Your task to perform on an android device: add a contact Image 0: 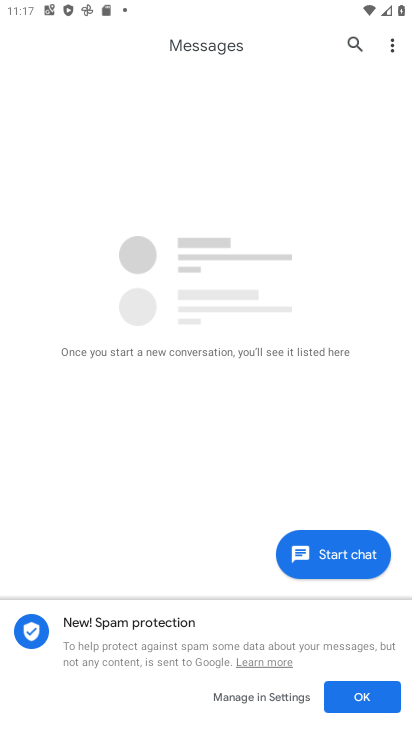
Step 0: press home button
Your task to perform on an android device: add a contact Image 1: 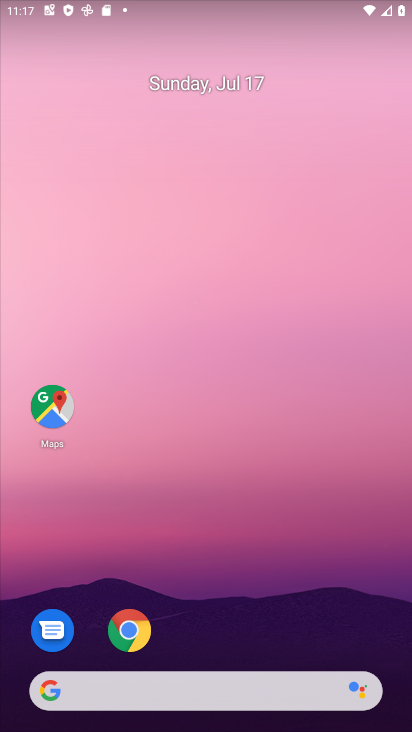
Step 1: drag from (258, 636) to (255, 179)
Your task to perform on an android device: add a contact Image 2: 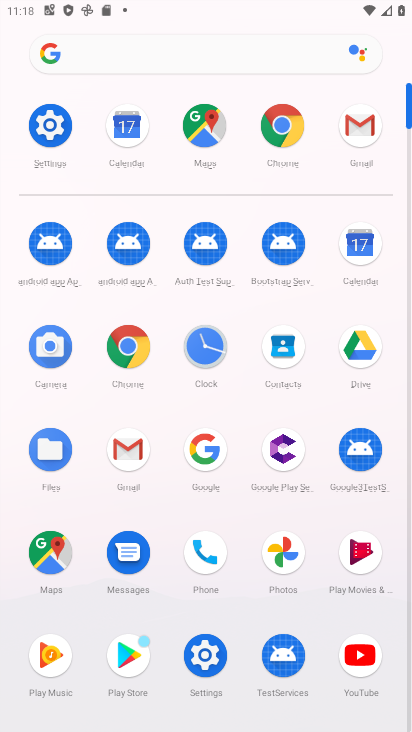
Step 2: click (283, 364)
Your task to perform on an android device: add a contact Image 3: 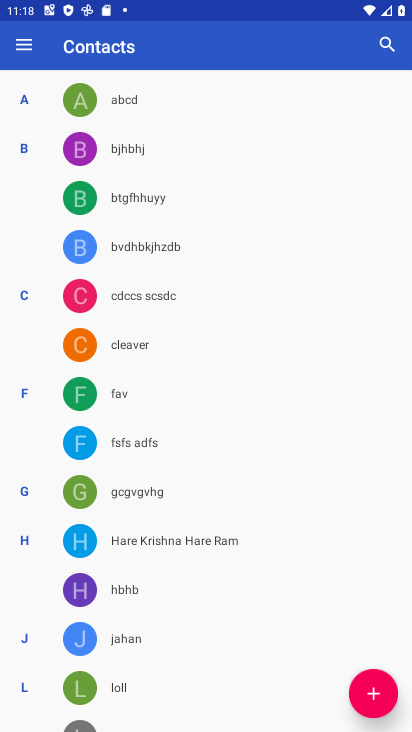
Step 3: click (383, 706)
Your task to perform on an android device: add a contact Image 4: 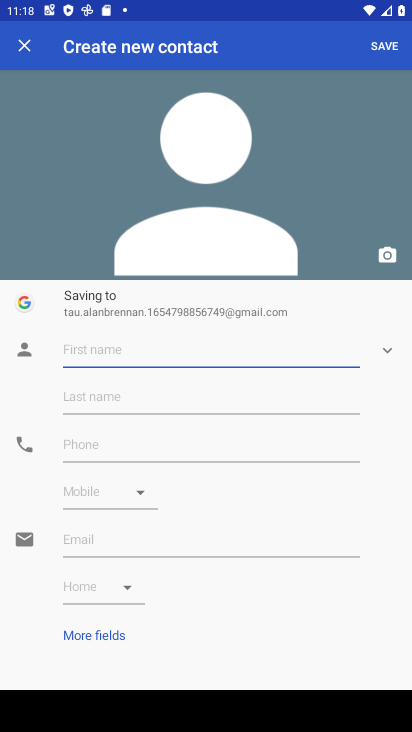
Step 4: type "fdsdfsd"
Your task to perform on an android device: add a contact Image 5: 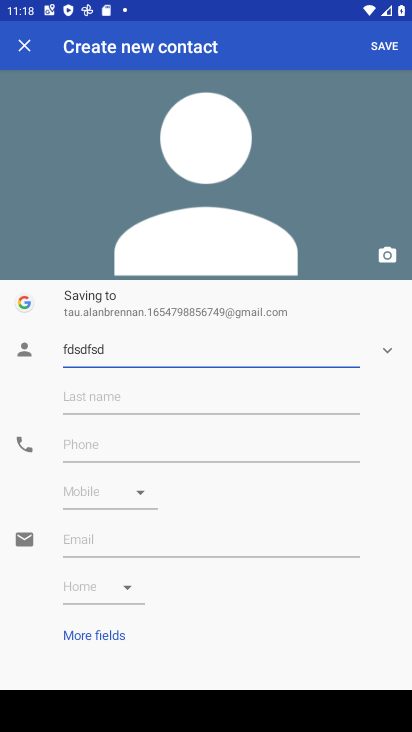
Step 5: click (152, 407)
Your task to perform on an android device: add a contact Image 6: 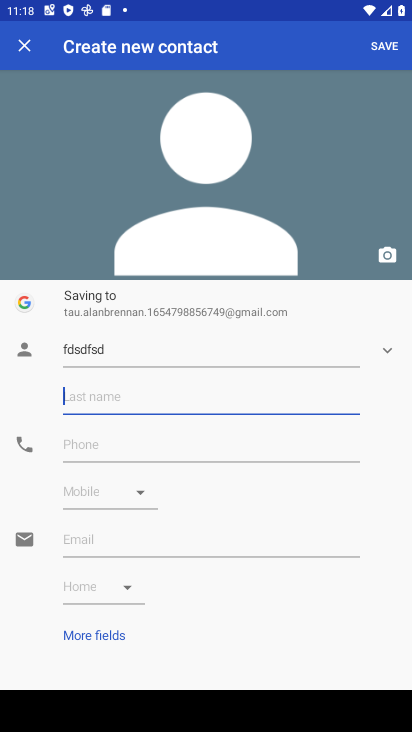
Step 6: type "sfsds"
Your task to perform on an android device: add a contact Image 7: 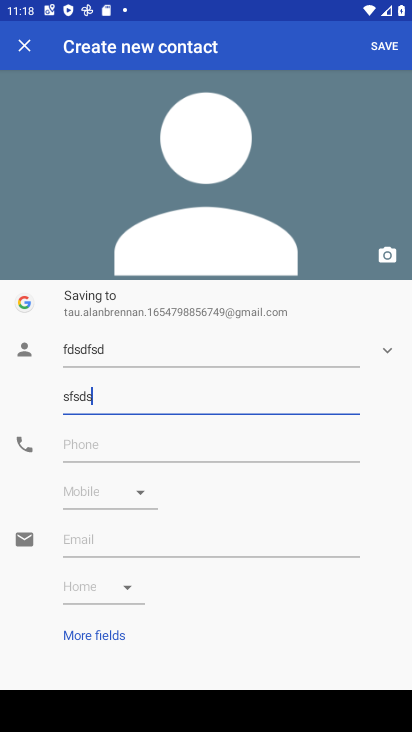
Step 7: click (172, 439)
Your task to perform on an android device: add a contact Image 8: 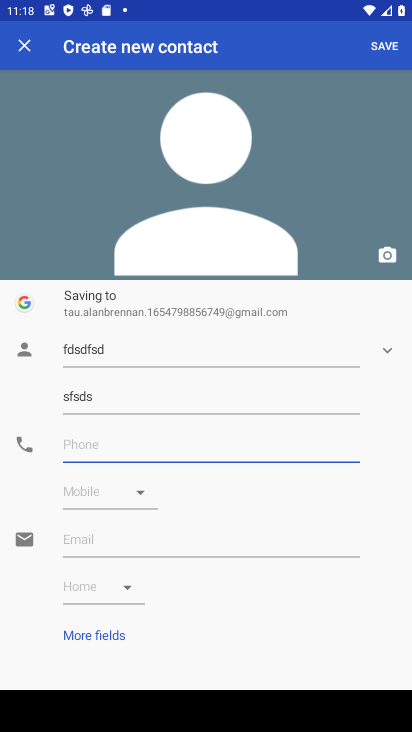
Step 8: type "23425525"
Your task to perform on an android device: add a contact Image 9: 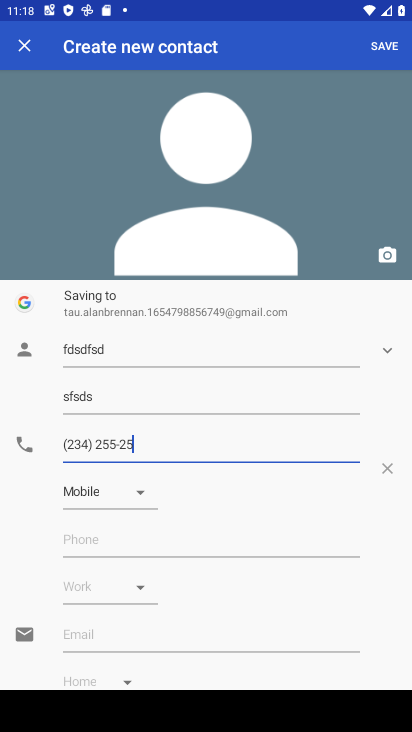
Step 9: click (387, 48)
Your task to perform on an android device: add a contact Image 10: 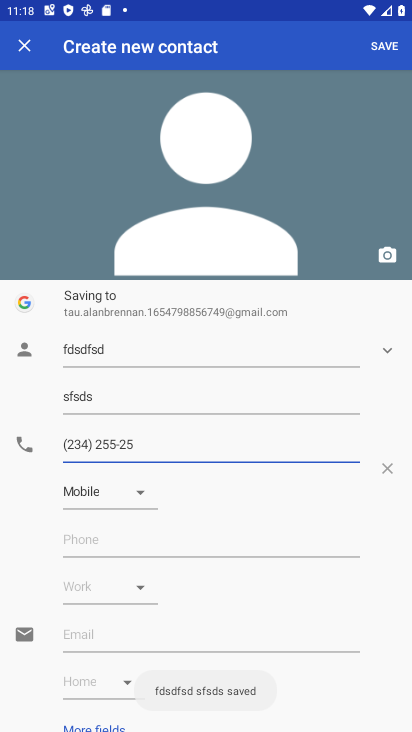
Step 10: task complete